Your task to perform on an android device: turn off notifications in google photos Image 0: 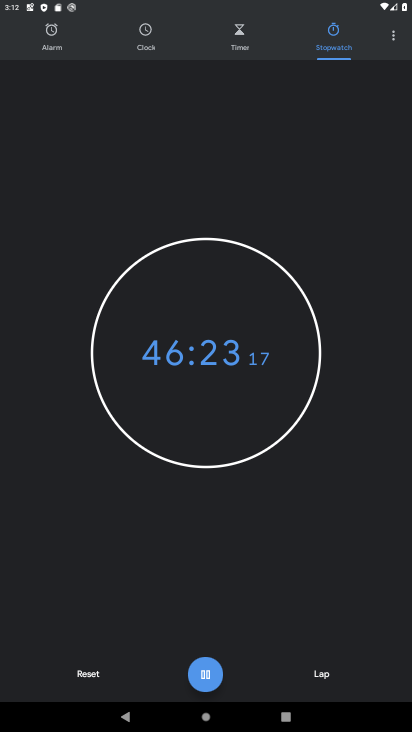
Step 0: press home button
Your task to perform on an android device: turn off notifications in google photos Image 1: 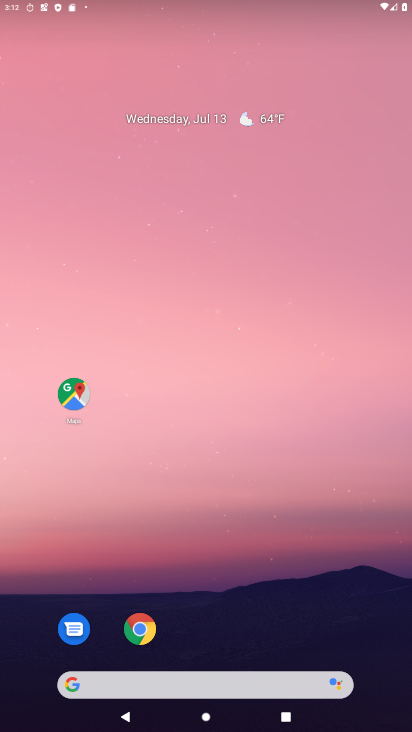
Step 1: drag from (231, 704) to (273, 131)
Your task to perform on an android device: turn off notifications in google photos Image 2: 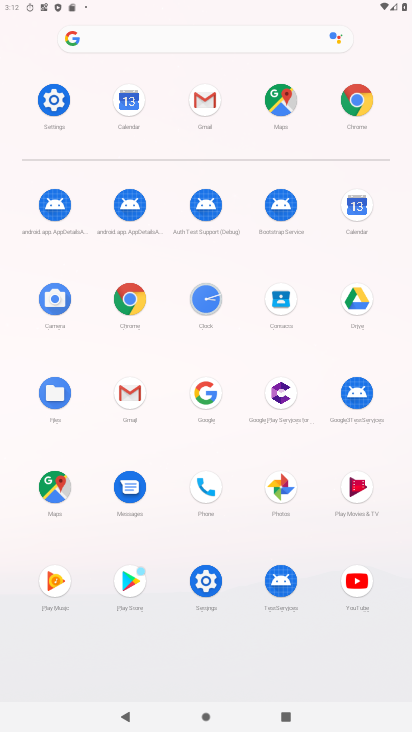
Step 2: click (268, 480)
Your task to perform on an android device: turn off notifications in google photos Image 3: 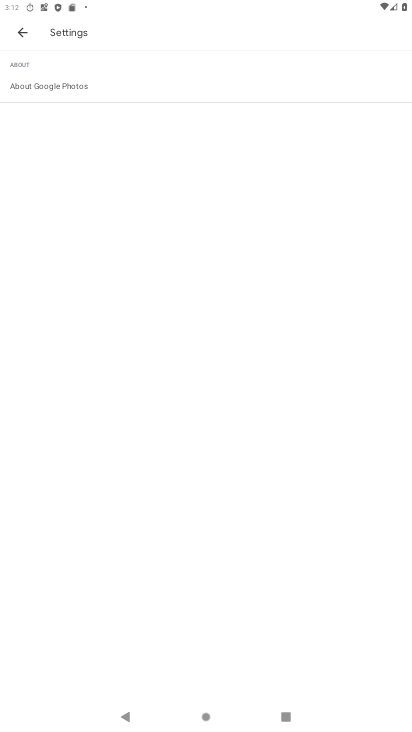
Step 3: press back button
Your task to perform on an android device: turn off notifications in google photos Image 4: 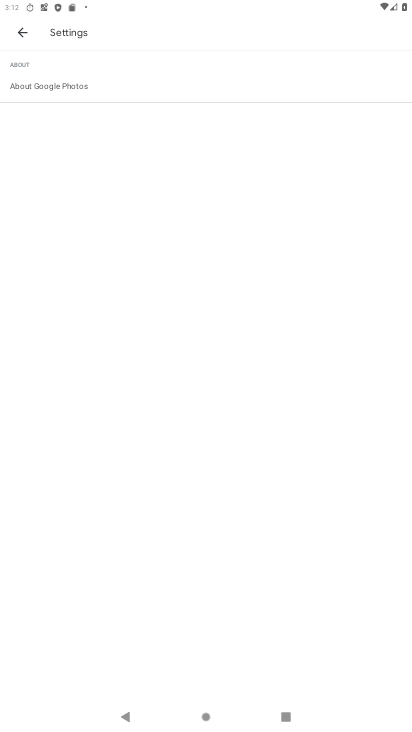
Step 4: press back button
Your task to perform on an android device: turn off notifications in google photos Image 5: 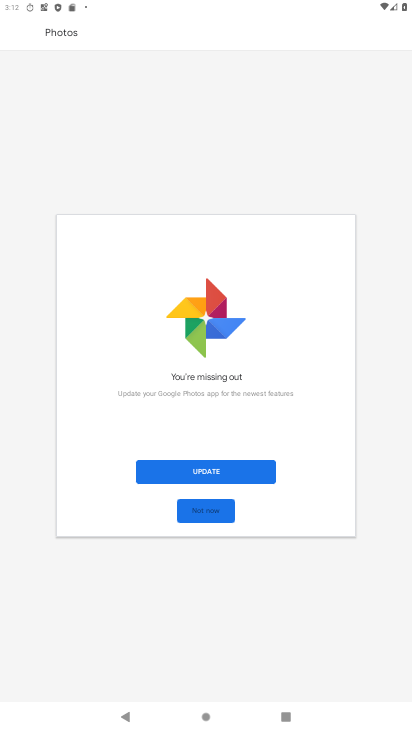
Step 5: click (220, 475)
Your task to perform on an android device: turn off notifications in google photos Image 6: 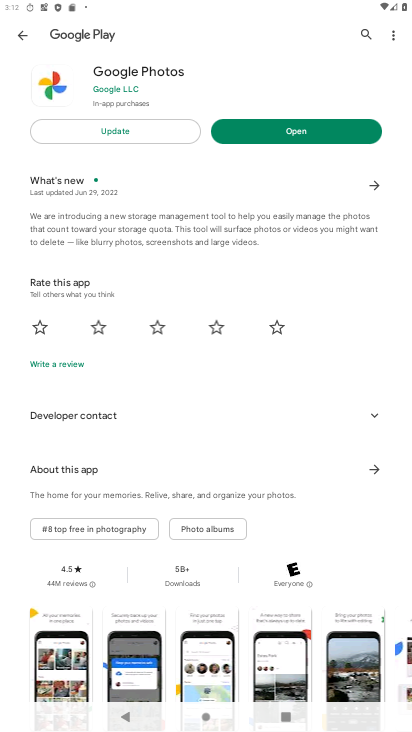
Step 6: click (124, 126)
Your task to perform on an android device: turn off notifications in google photos Image 7: 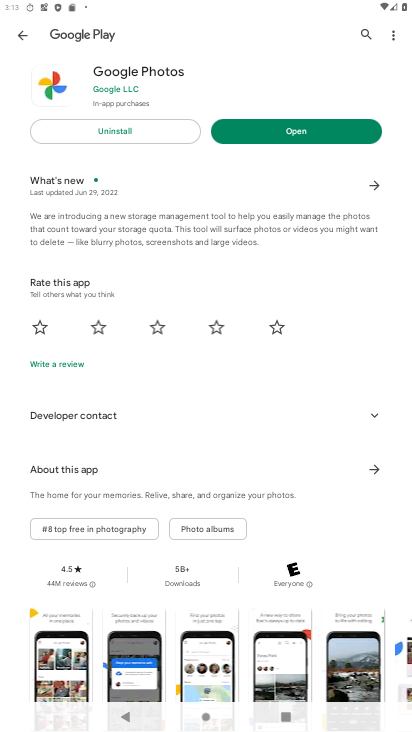
Step 7: click (305, 136)
Your task to perform on an android device: turn off notifications in google photos Image 8: 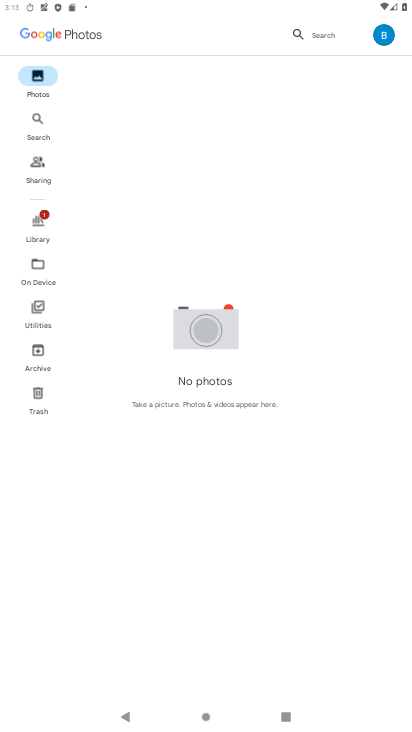
Step 8: click (374, 33)
Your task to perform on an android device: turn off notifications in google photos Image 9: 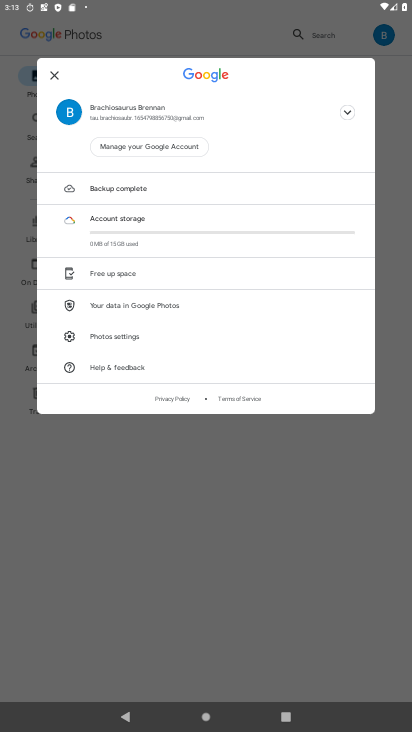
Step 9: click (145, 341)
Your task to perform on an android device: turn off notifications in google photos Image 10: 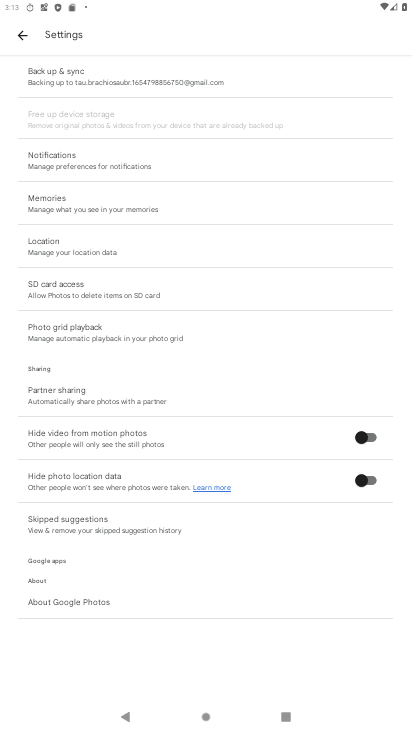
Step 10: click (104, 158)
Your task to perform on an android device: turn off notifications in google photos Image 11: 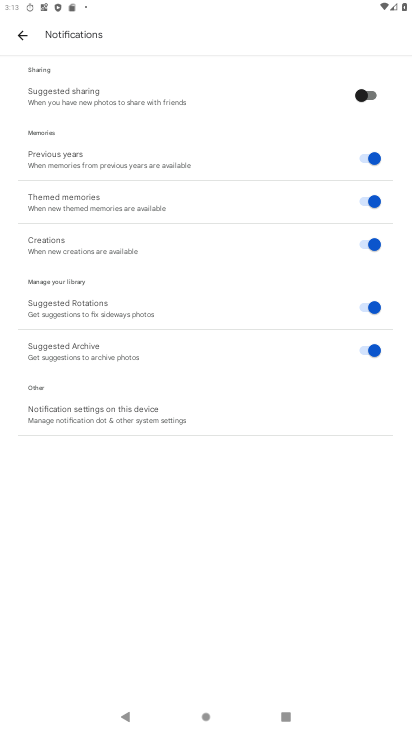
Step 11: task complete